Your task to perform on an android device: Search for vegetarian restaurants on Maps Image 0: 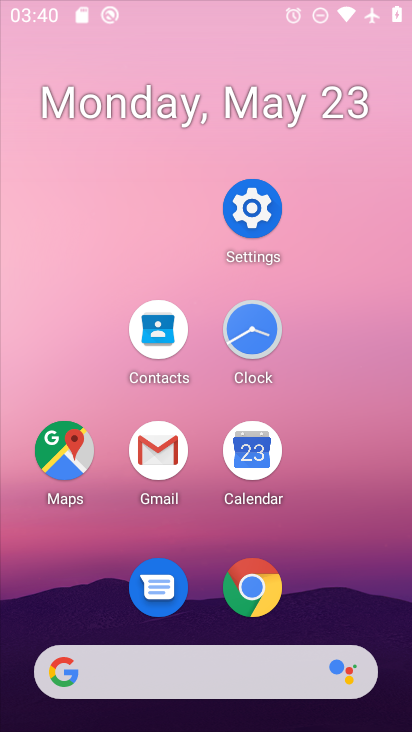
Step 0: press home button
Your task to perform on an android device: Search for vegetarian restaurants on Maps Image 1: 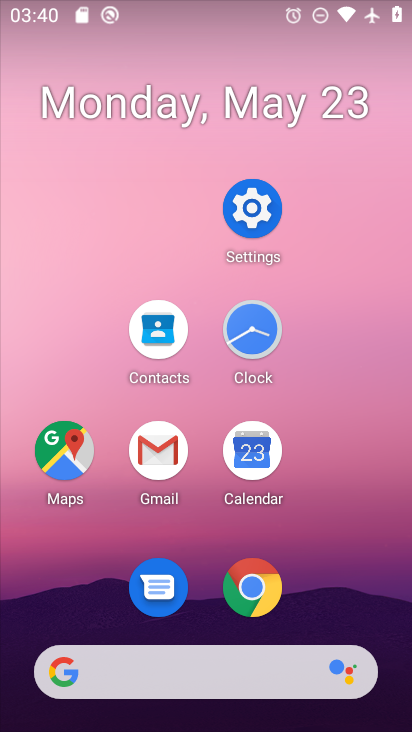
Step 1: click (68, 454)
Your task to perform on an android device: Search for vegetarian restaurants on Maps Image 2: 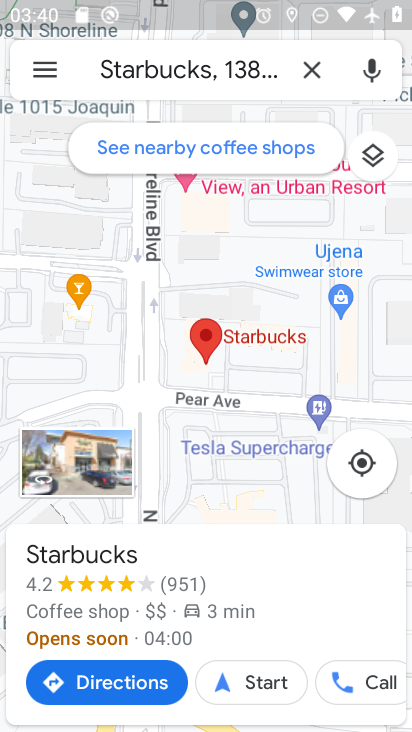
Step 2: click (311, 79)
Your task to perform on an android device: Search for vegetarian restaurants on Maps Image 3: 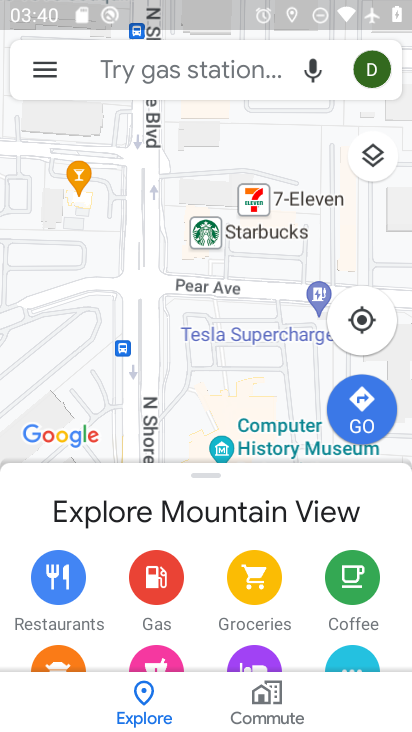
Step 3: click (210, 79)
Your task to perform on an android device: Search for vegetarian restaurants on Maps Image 4: 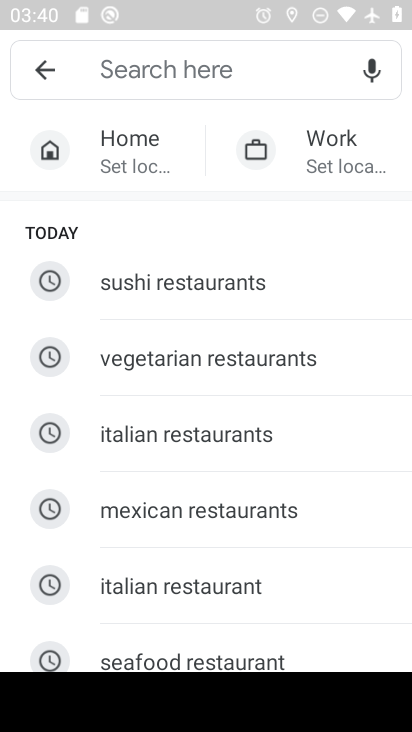
Step 4: click (185, 357)
Your task to perform on an android device: Search for vegetarian restaurants on Maps Image 5: 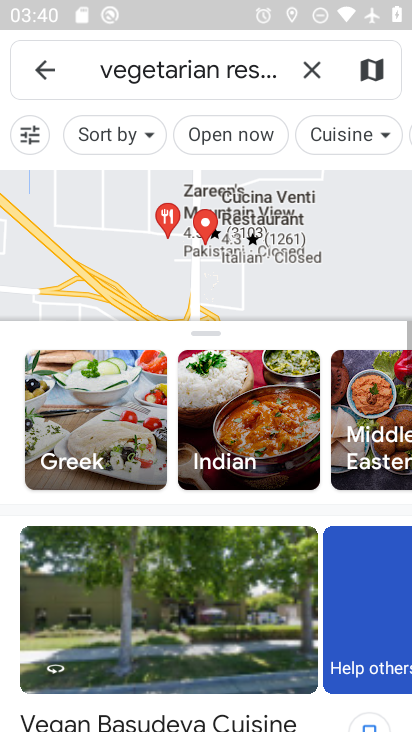
Step 5: task complete